Your task to perform on an android device: open app "Adobe Express: Graphic Design" (install if not already installed), go to login, and select forgot password Image 0: 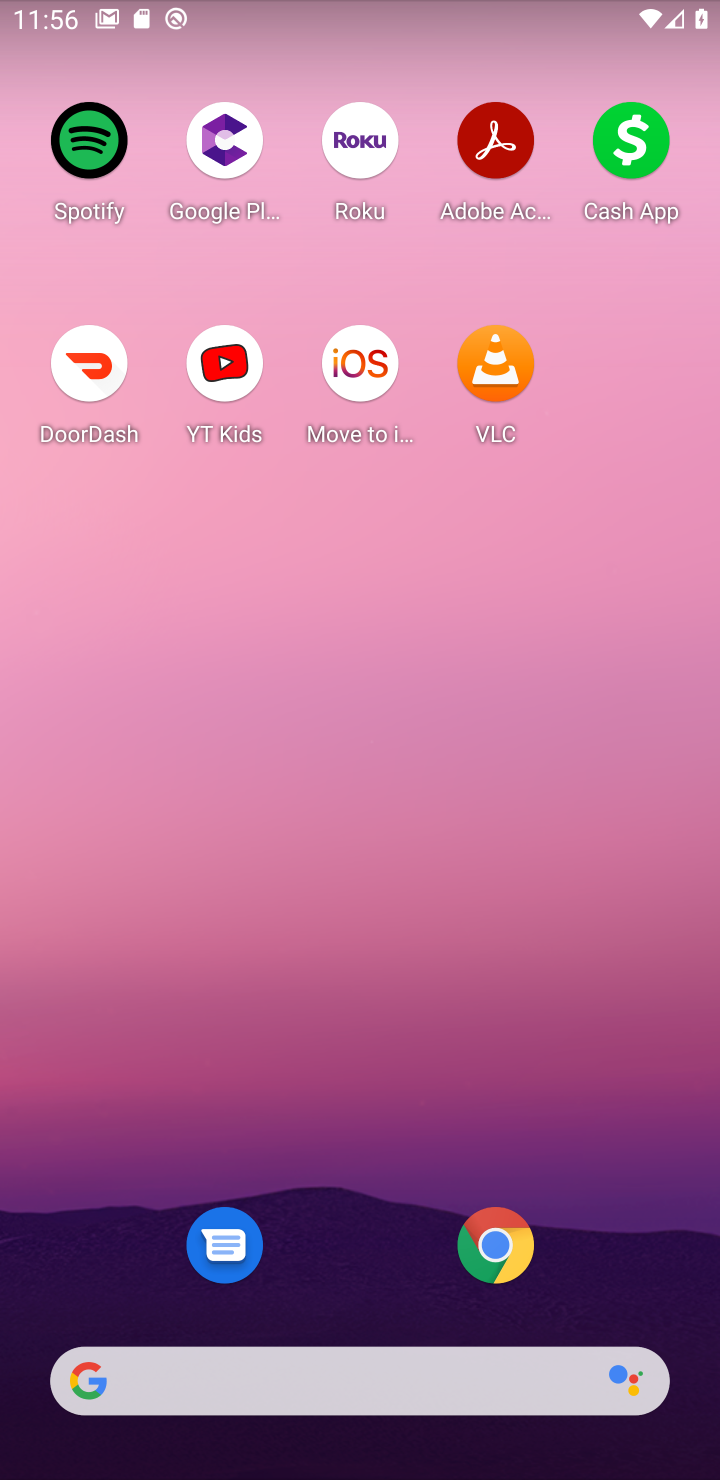
Step 0: press home button
Your task to perform on an android device: open app "Adobe Express: Graphic Design" (install if not already installed), go to login, and select forgot password Image 1: 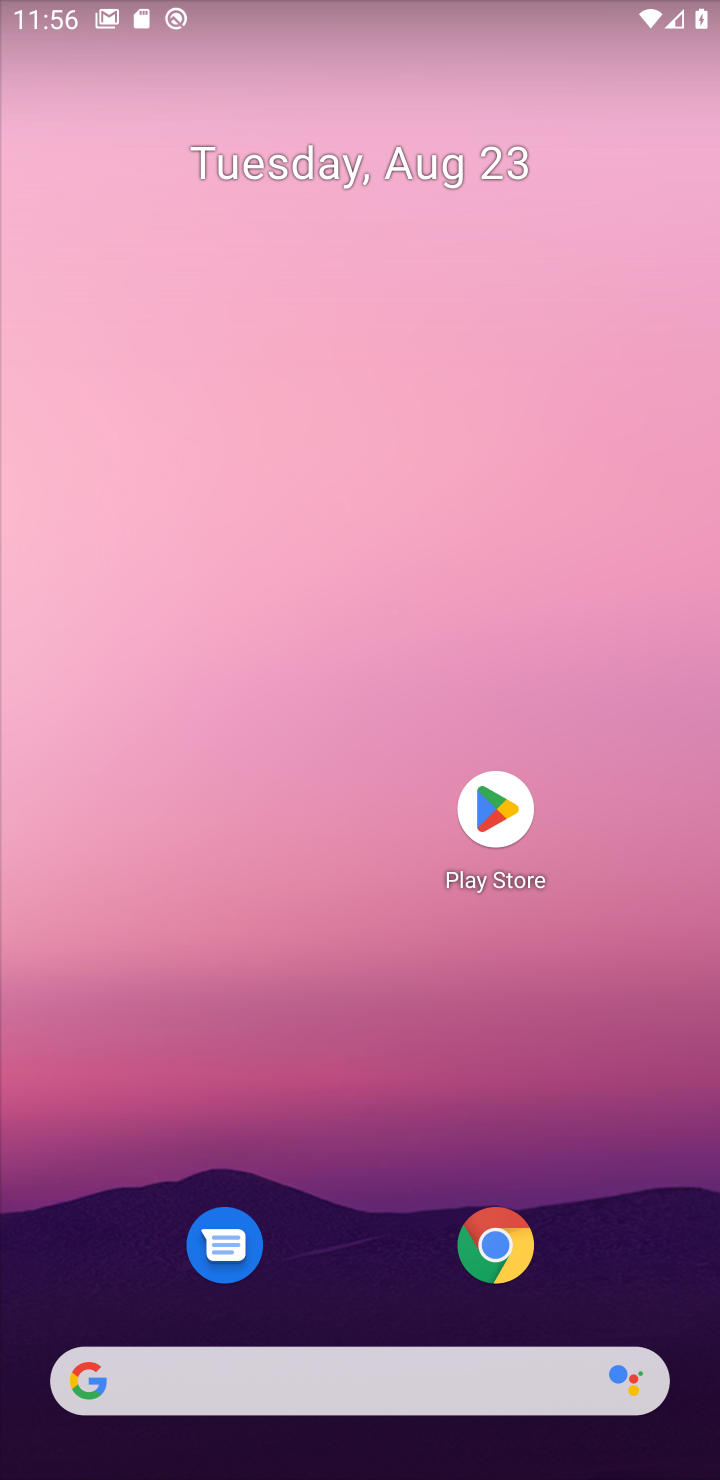
Step 1: click (492, 818)
Your task to perform on an android device: open app "Adobe Express: Graphic Design" (install if not already installed), go to login, and select forgot password Image 2: 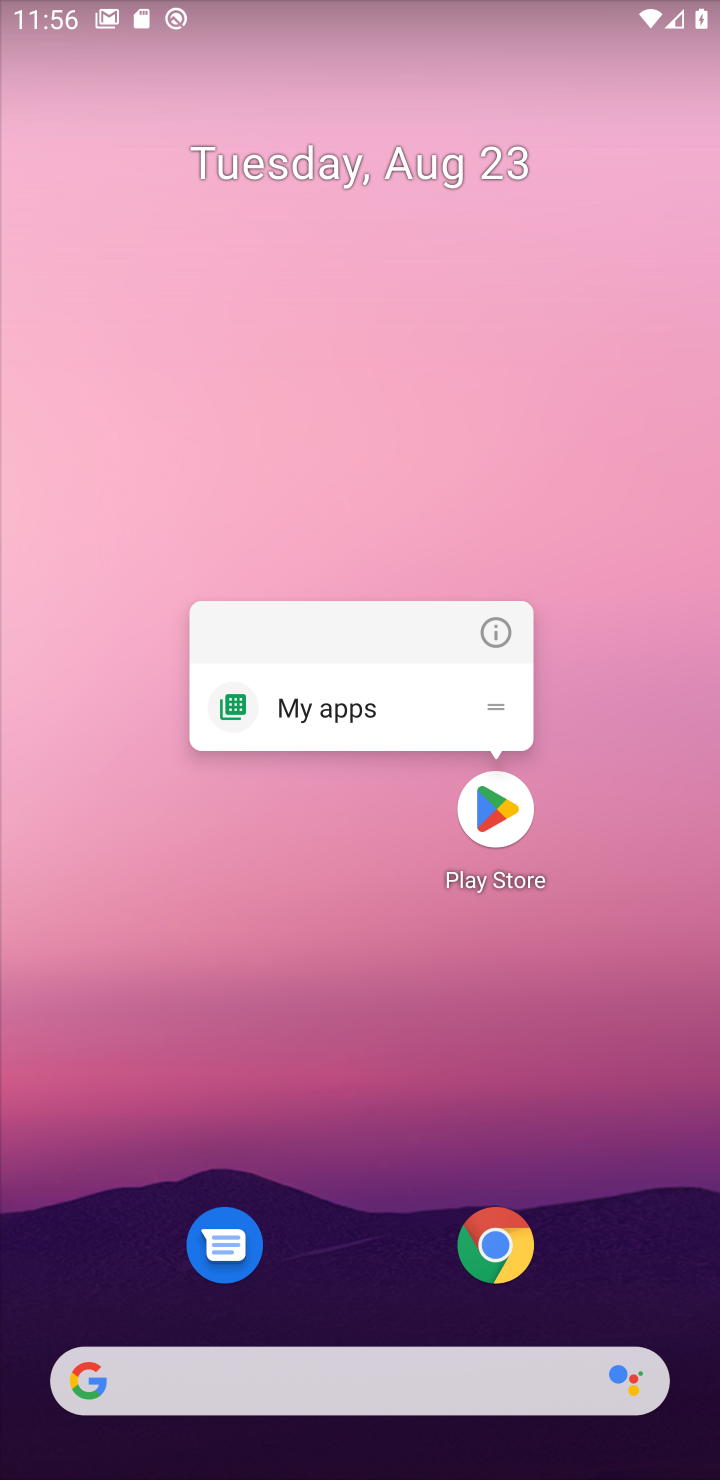
Step 2: click (494, 811)
Your task to perform on an android device: open app "Adobe Express: Graphic Design" (install if not already installed), go to login, and select forgot password Image 3: 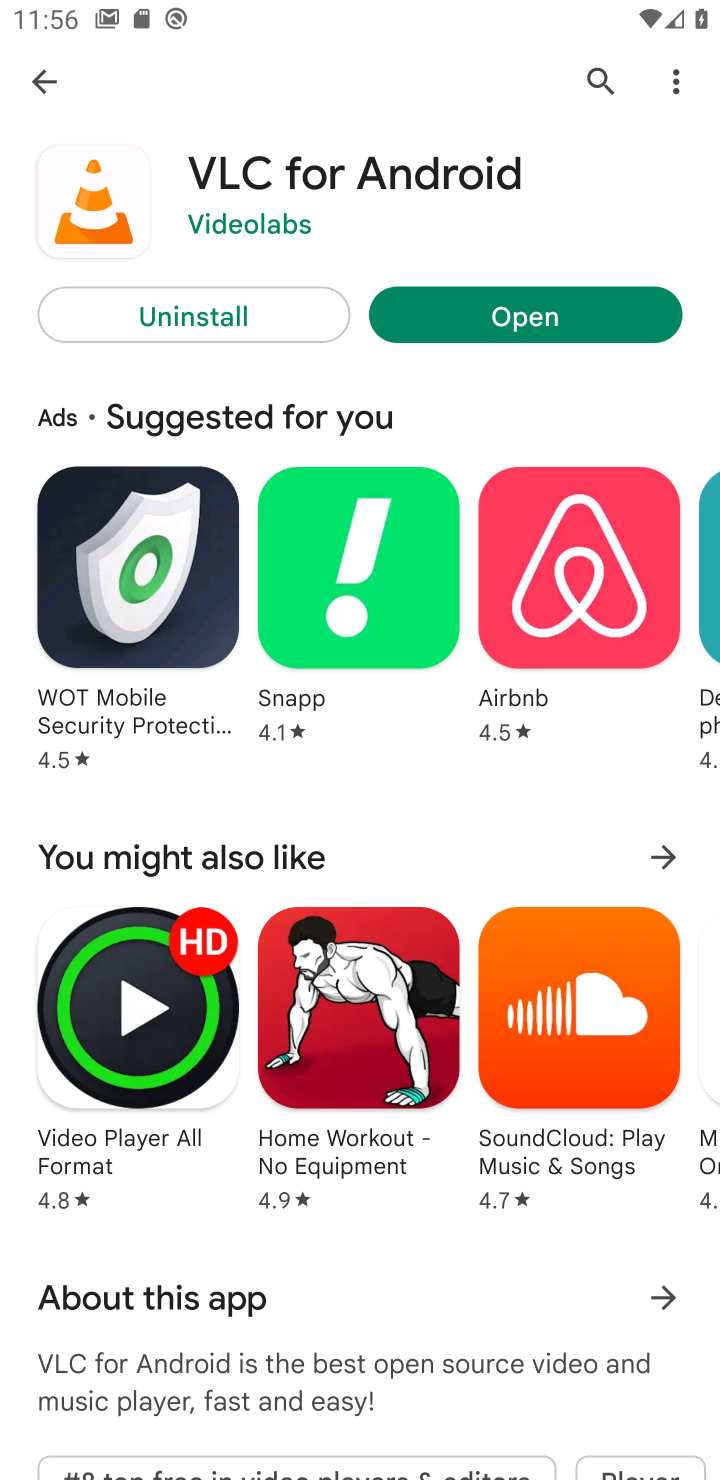
Step 3: click (602, 71)
Your task to perform on an android device: open app "Adobe Express: Graphic Design" (install if not already installed), go to login, and select forgot password Image 4: 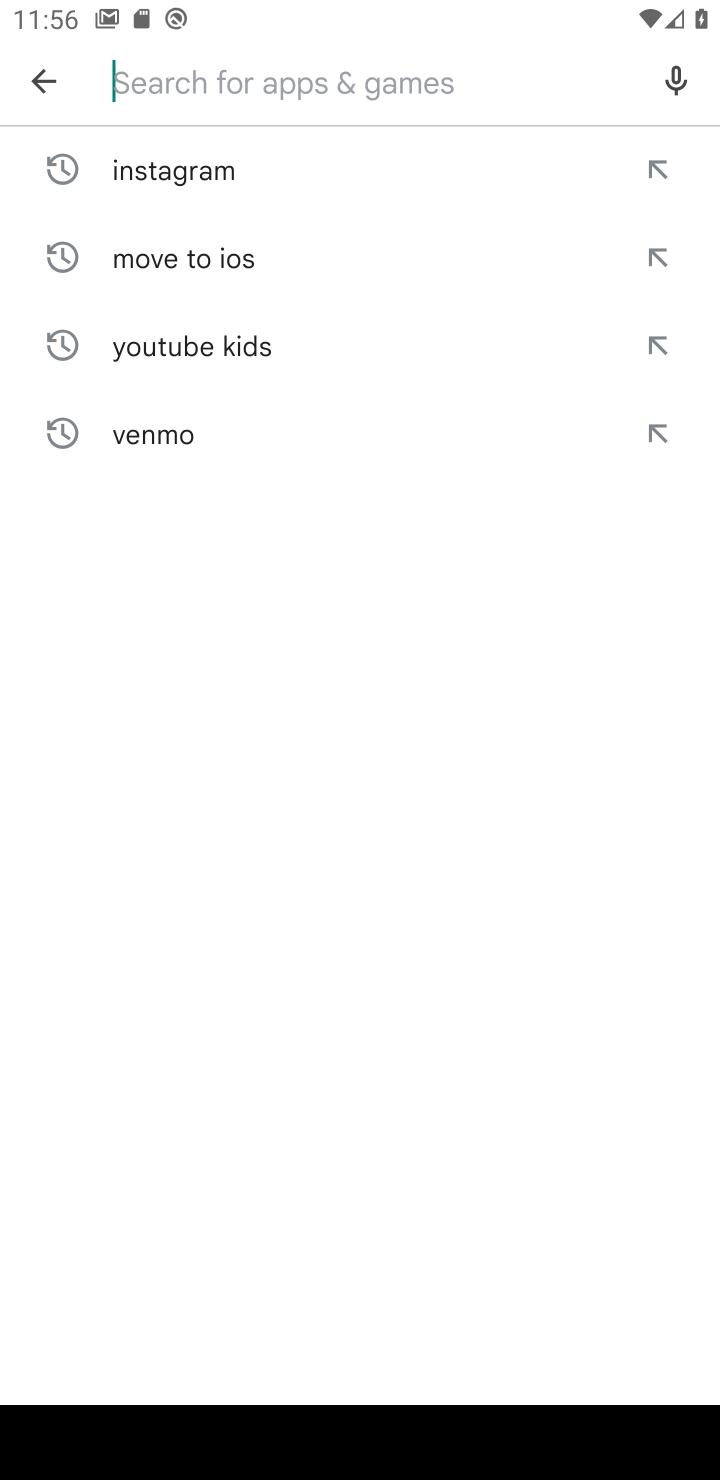
Step 4: type "Adobe Express: Graphic Design"
Your task to perform on an android device: open app "Adobe Express: Graphic Design" (install if not already installed), go to login, and select forgot password Image 5: 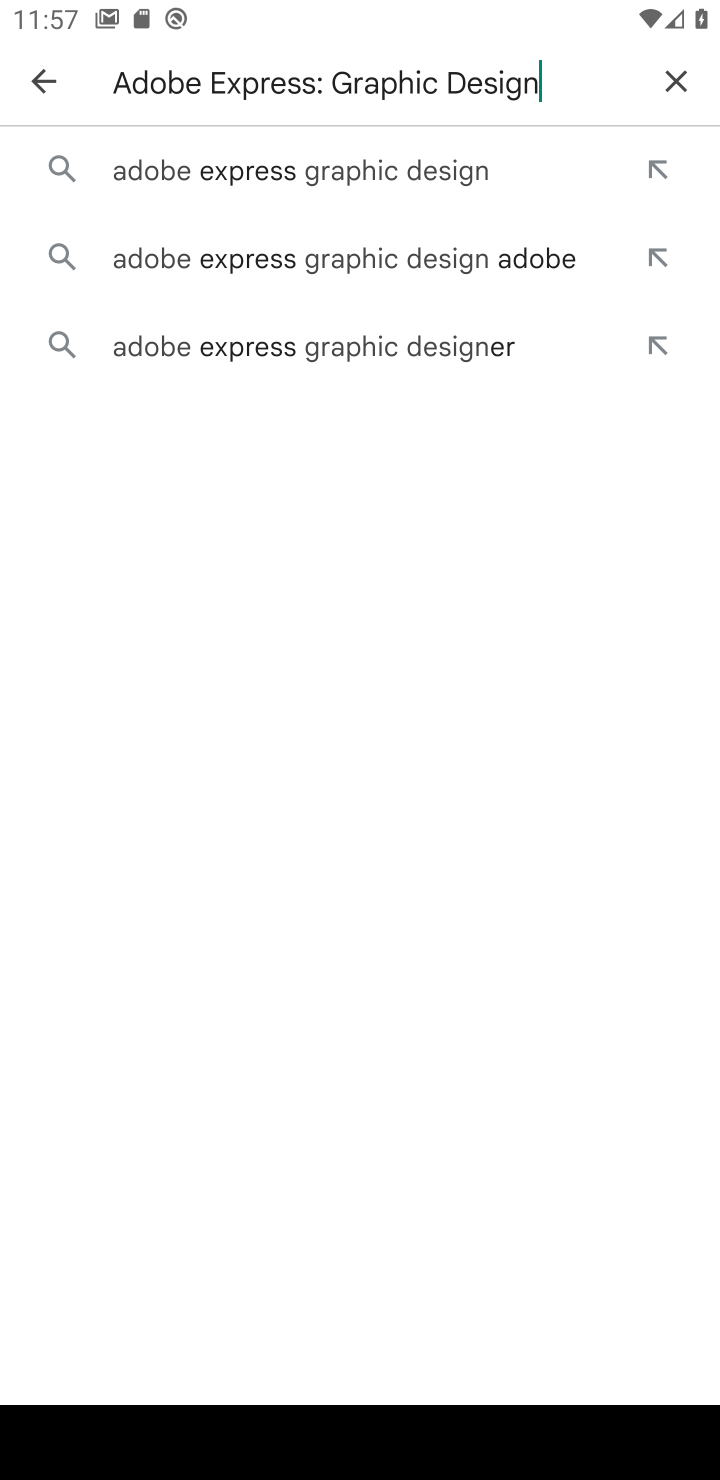
Step 5: click (421, 171)
Your task to perform on an android device: open app "Adobe Express: Graphic Design" (install if not already installed), go to login, and select forgot password Image 6: 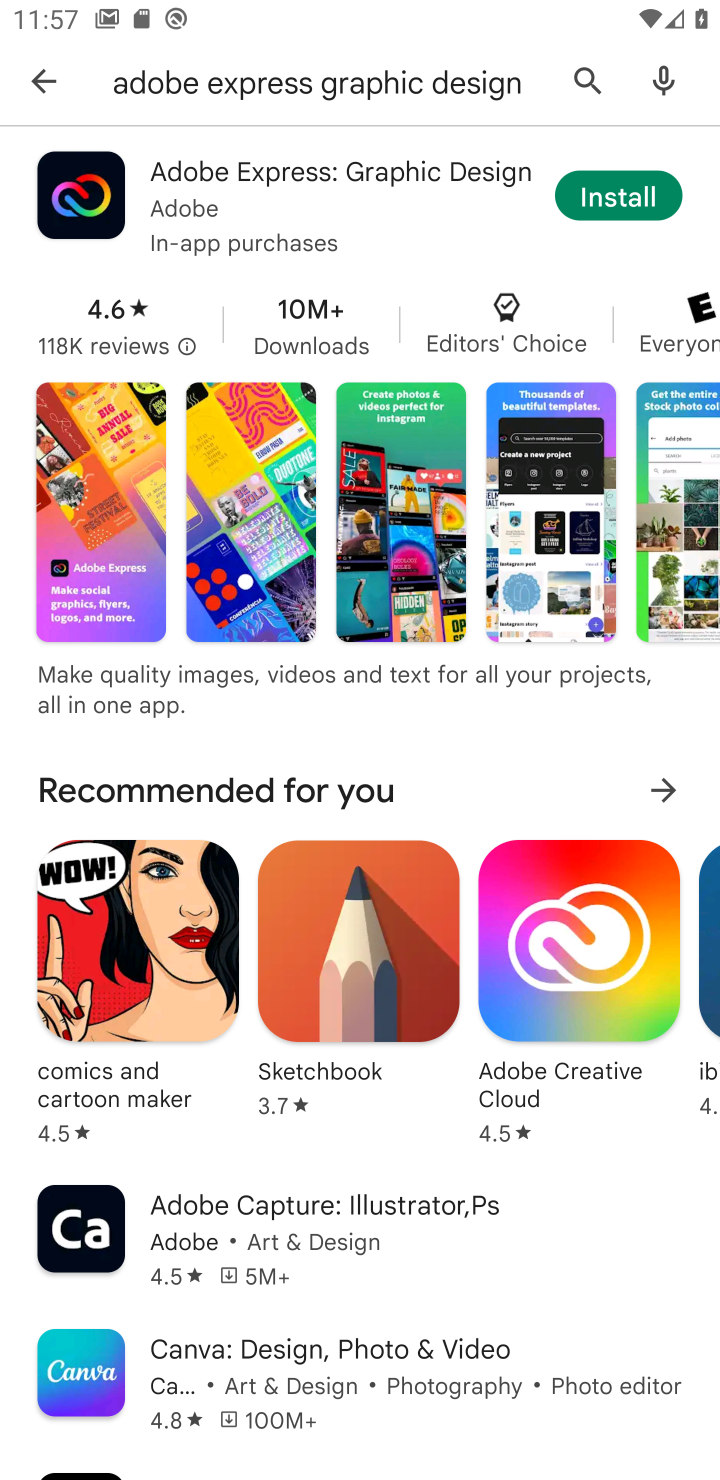
Step 6: click (619, 188)
Your task to perform on an android device: open app "Adobe Express: Graphic Design" (install if not already installed), go to login, and select forgot password Image 7: 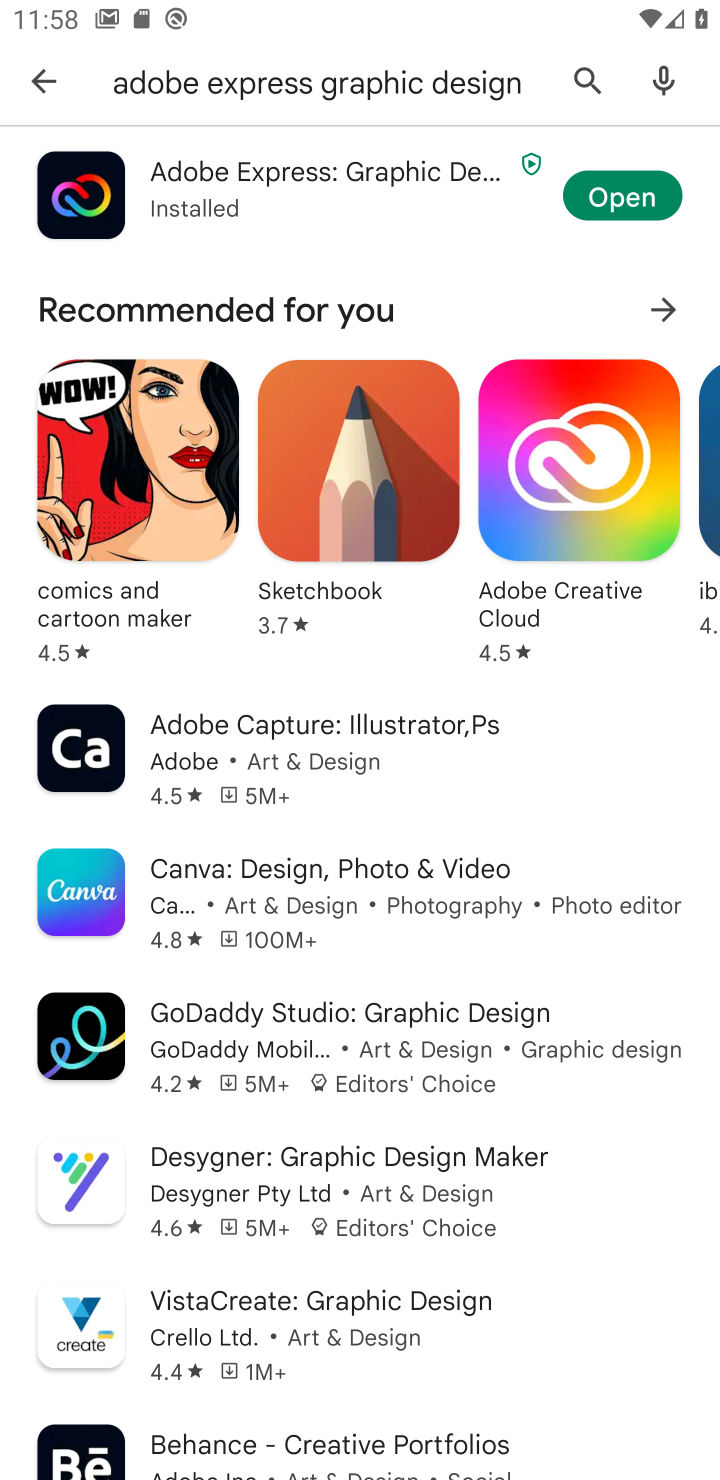
Step 7: click (628, 200)
Your task to perform on an android device: open app "Adobe Express: Graphic Design" (install if not already installed), go to login, and select forgot password Image 8: 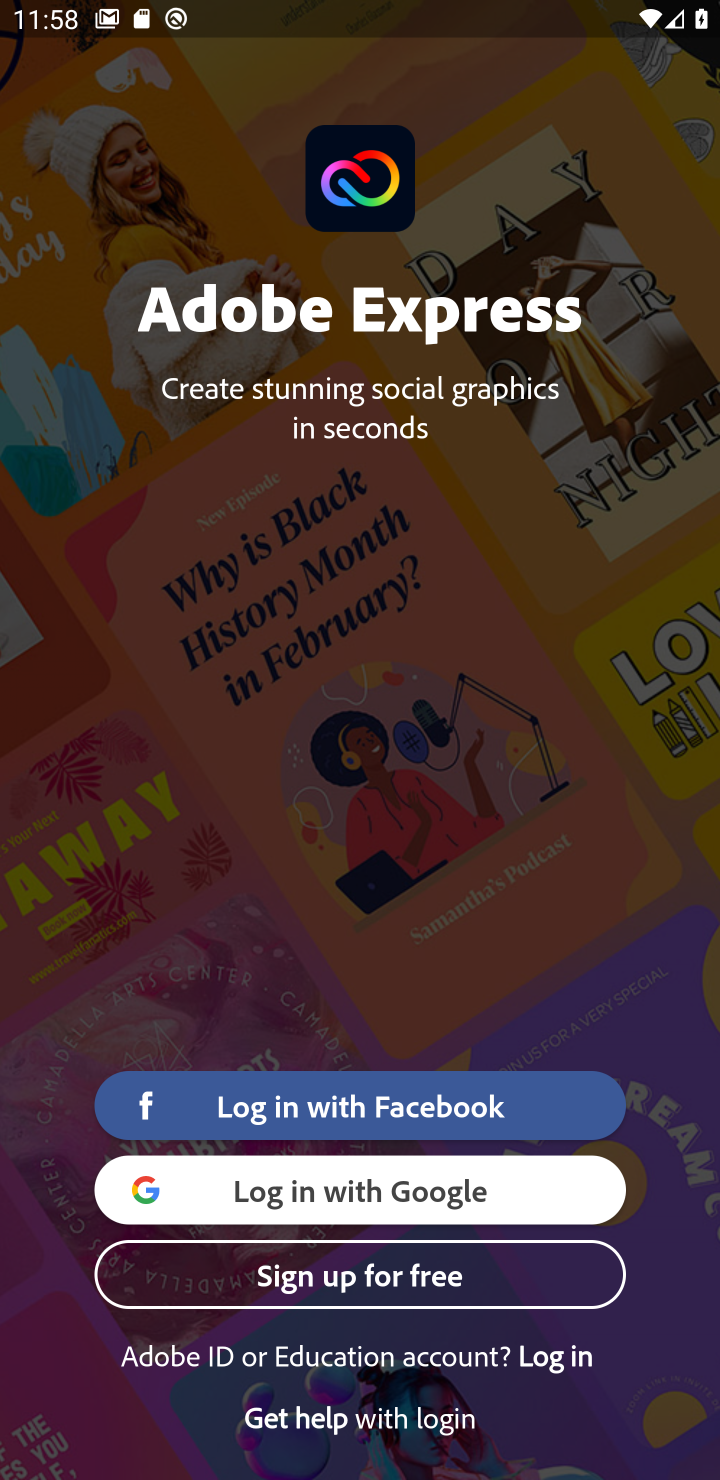
Step 8: click (576, 1350)
Your task to perform on an android device: open app "Adobe Express: Graphic Design" (install if not already installed), go to login, and select forgot password Image 9: 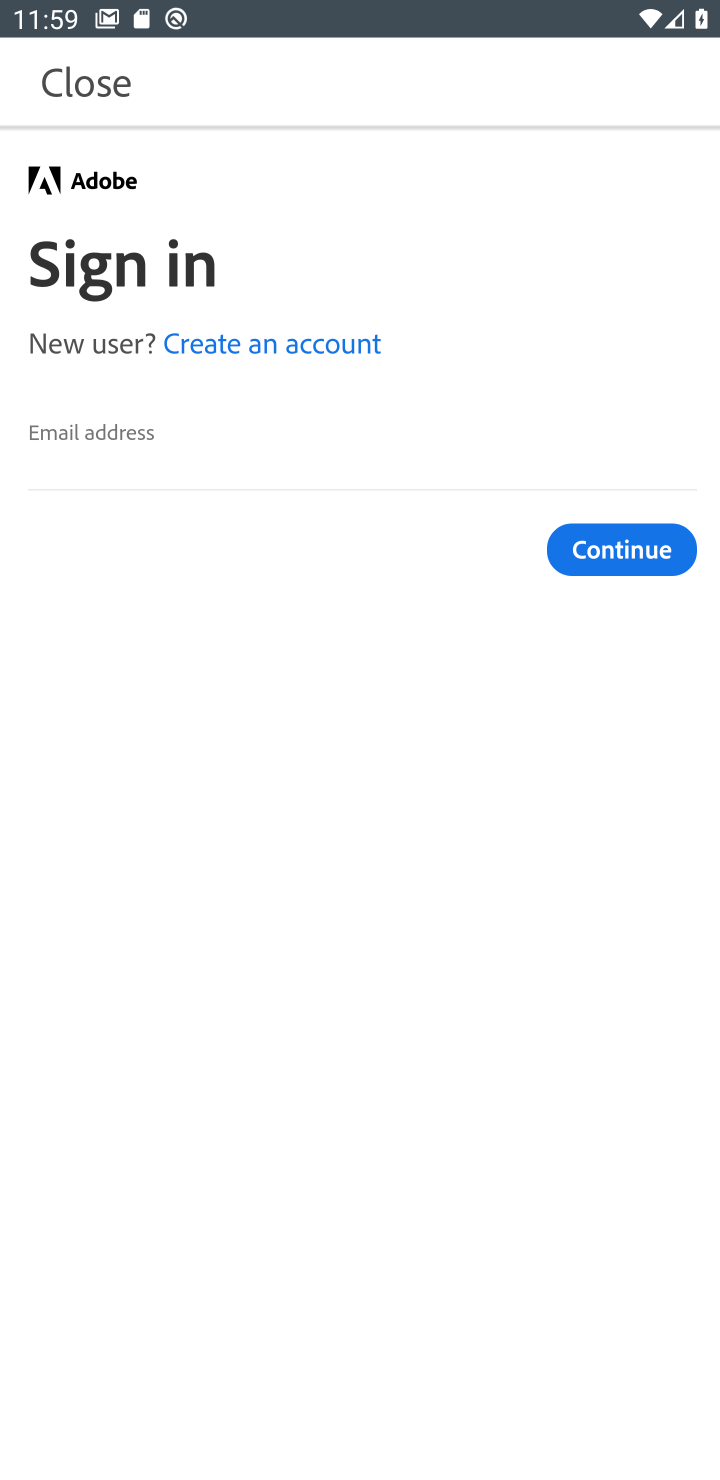
Step 9: task complete